Your task to perform on an android device: Open network settings Image 0: 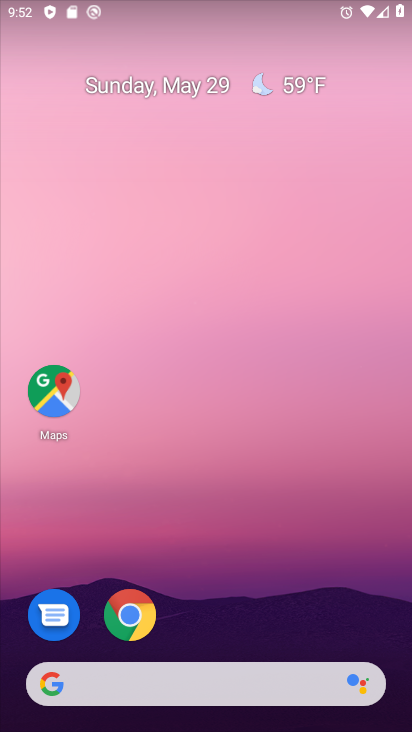
Step 0: drag from (201, 509) to (249, 79)
Your task to perform on an android device: Open network settings Image 1: 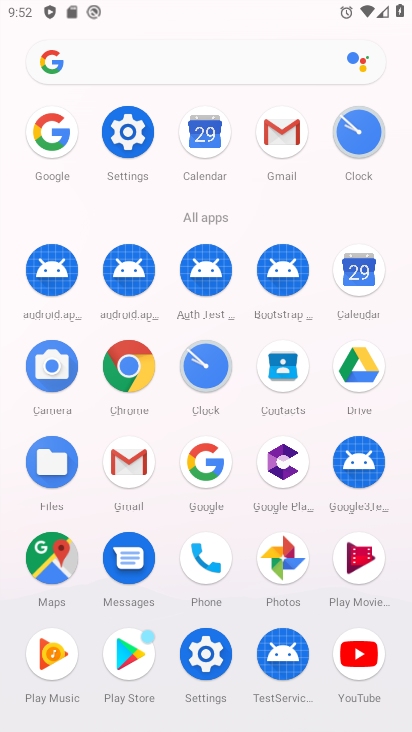
Step 1: click (131, 124)
Your task to perform on an android device: Open network settings Image 2: 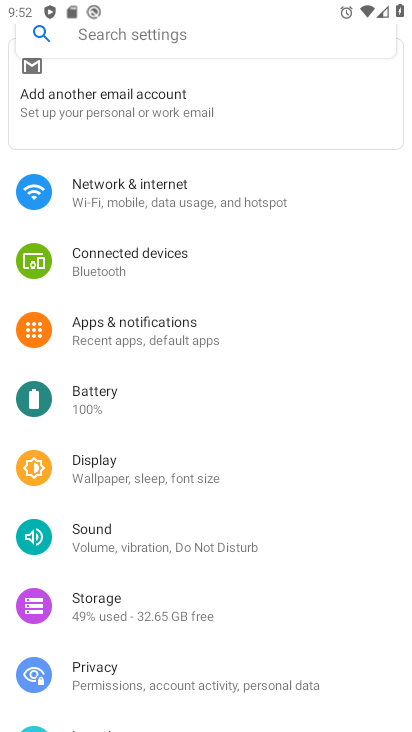
Step 2: click (153, 216)
Your task to perform on an android device: Open network settings Image 3: 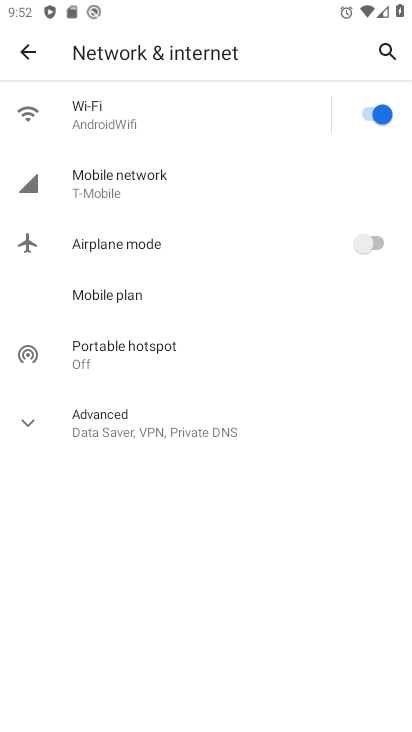
Step 3: click (144, 196)
Your task to perform on an android device: Open network settings Image 4: 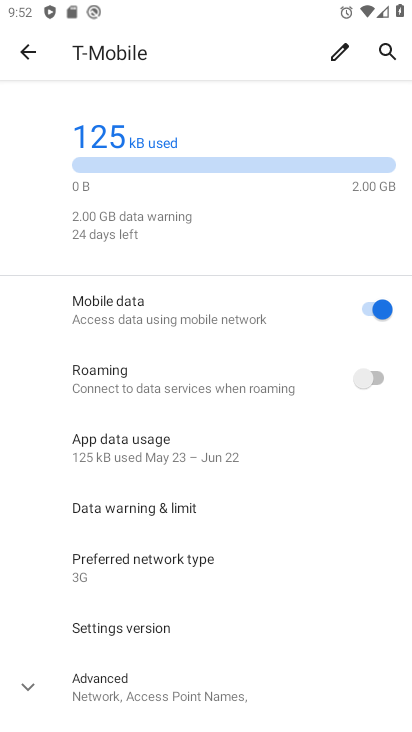
Step 4: task complete